Your task to perform on an android device: check data usage Image 0: 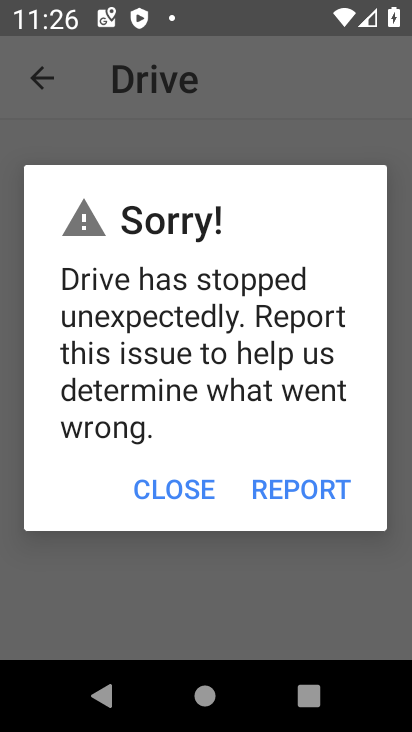
Step 0: press home button
Your task to perform on an android device: check data usage Image 1: 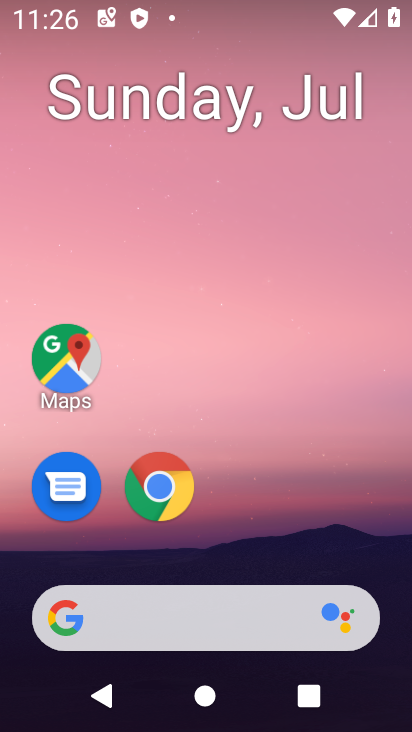
Step 1: drag from (361, 531) to (379, 97)
Your task to perform on an android device: check data usage Image 2: 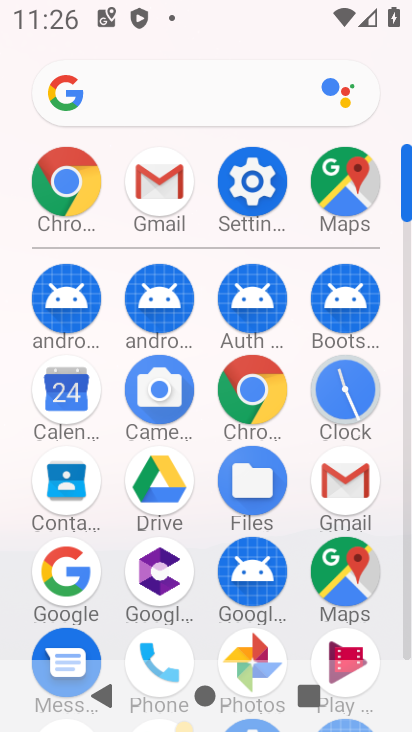
Step 2: click (265, 185)
Your task to perform on an android device: check data usage Image 3: 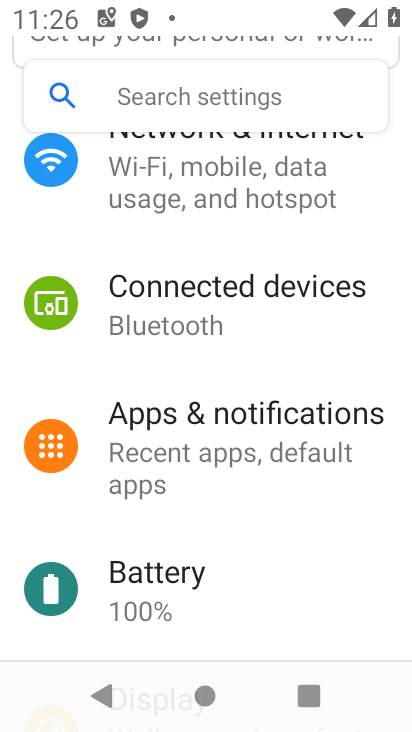
Step 3: drag from (374, 212) to (371, 398)
Your task to perform on an android device: check data usage Image 4: 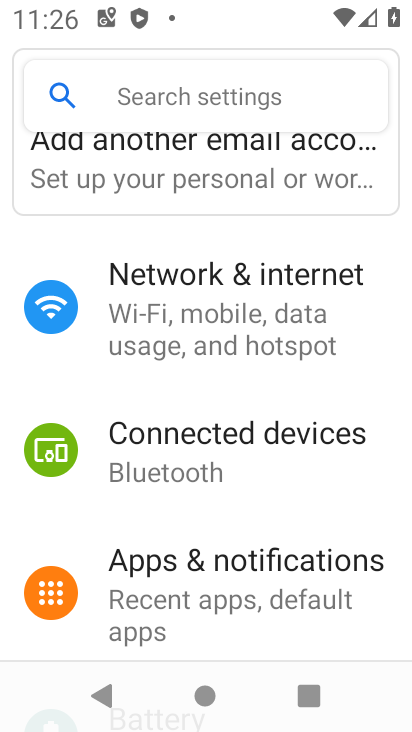
Step 4: drag from (367, 269) to (373, 425)
Your task to perform on an android device: check data usage Image 5: 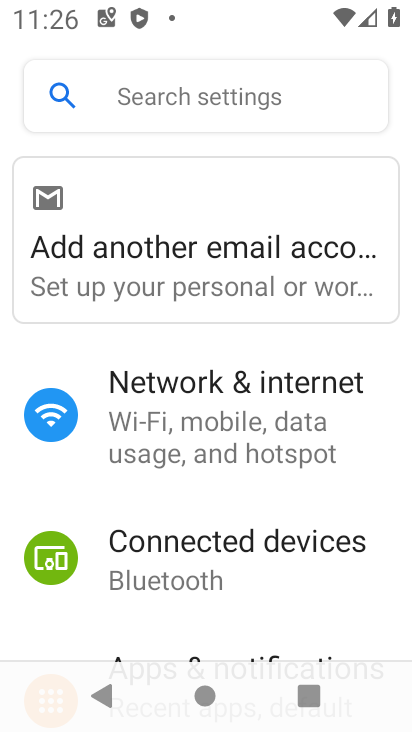
Step 5: drag from (376, 499) to (373, 384)
Your task to perform on an android device: check data usage Image 6: 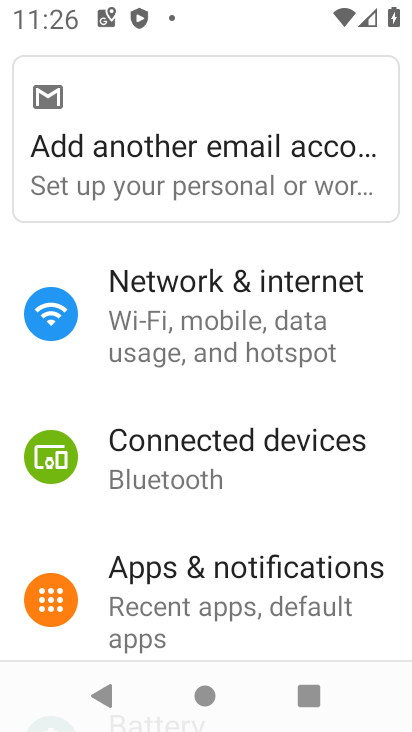
Step 6: drag from (353, 541) to (336, 392)
Your task to perform on an android device: check data usage Image 7: 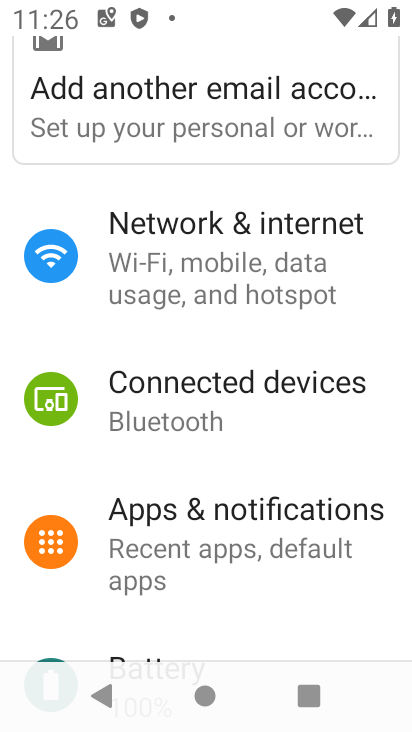
Step 7: drag from (358, 592) to (354, 411)
Your task to perform on an android device: check data usage Image 8: 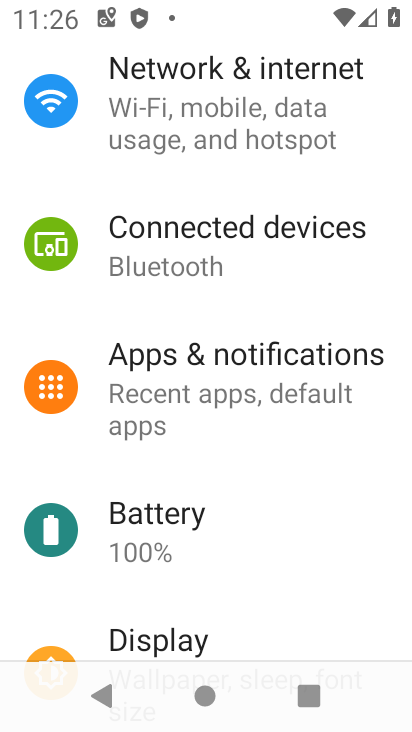
Step 8: drag from (338, 462) to (336, 402)
Your task to perform on an android device: check data usage Image 9: 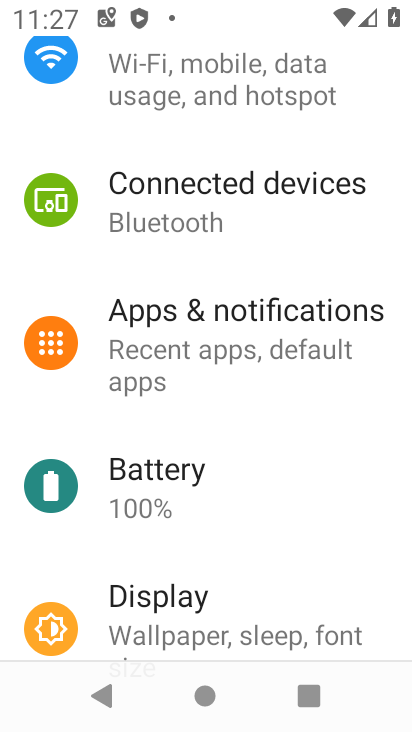
Step 9: drag from (330, 540) to (330, 365)
Your task to perform on an android device: check data usage Image 10: 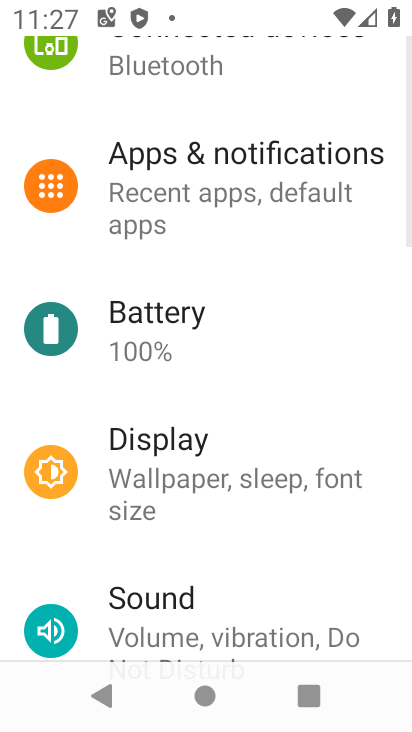
Step 10: drag from (331, 538) to (332, 374)
Your task to perform on an android device: check data usage Image 11: 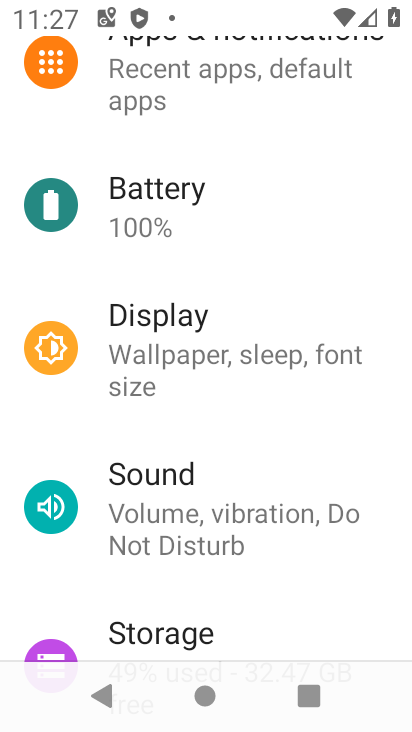
Step 11: drag from (315, 565) to (312, 434)
Your task to perform on an android device: check data usage Image 12: 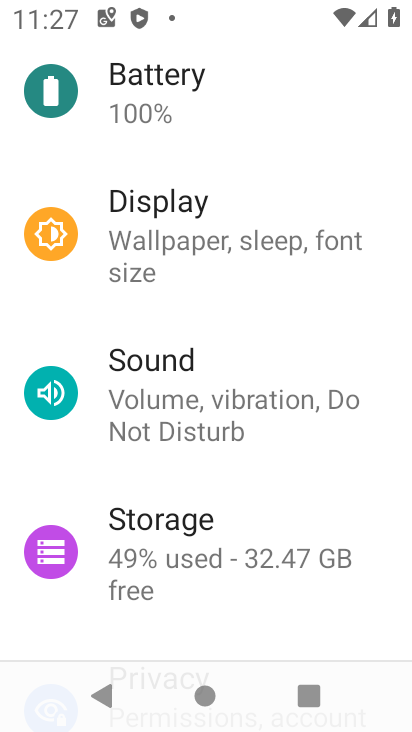
Step 12: drag from (334, 195) to (312, 389)
Your task to perform on an android device: check data usage Image 13: 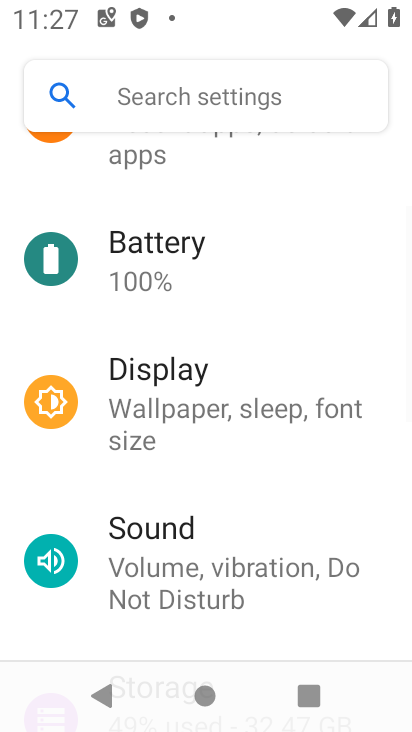
Step 13: drag from (332, 210) to (327, 369)
Your task to perform on an android device: check data usage Image 14: 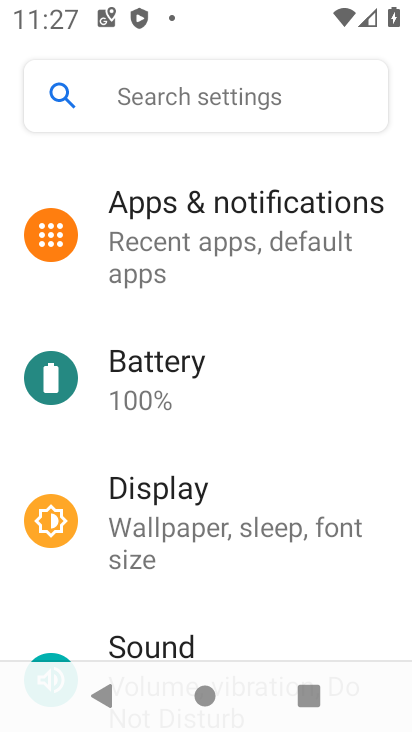
Step 14: drag from (356, 157) to (348, 428)
Your task to perform on an android device: check data usage Image 15: 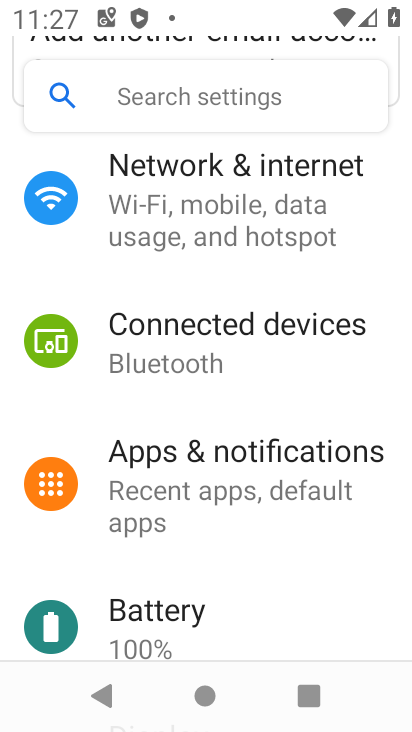
Step 15: click (321, 221)
Your task to perform on an android device: check data usage Image 16: 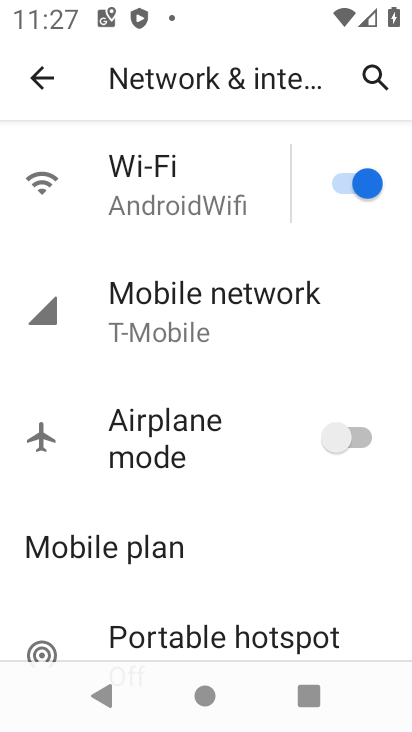
Step 16: drag from (263, 485) to (260, 341)
Your task to perform on an android device: check data usage Image 17: 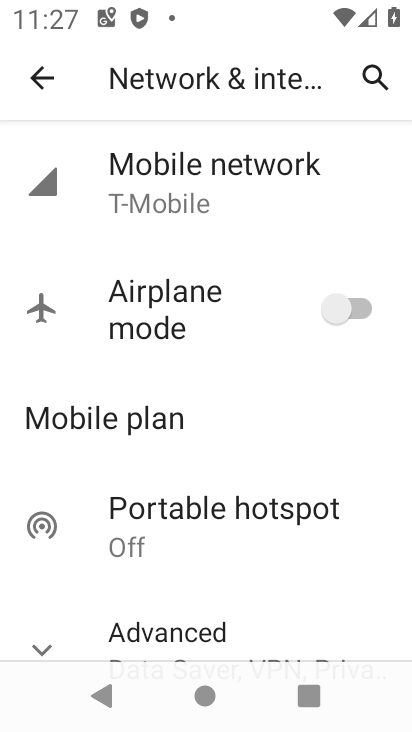
Step 17: drag from (264, 551) to (253, 315)
Your task to perform on an android device: check data usage Image 18: 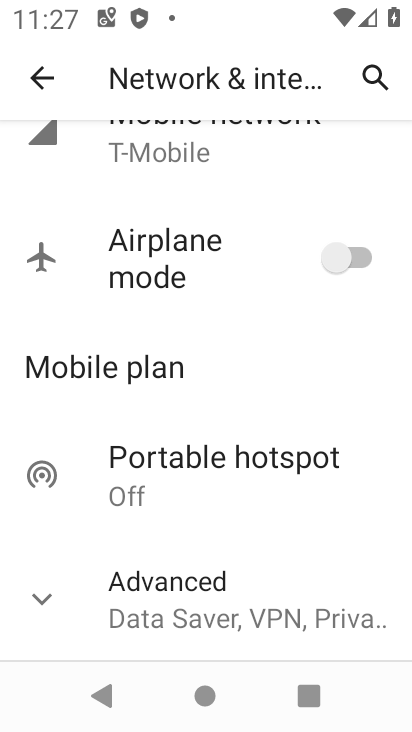
Step 18: drag from (250, 232) to (251, 474)
Your task to perform on an android device: check data usage Image 19: 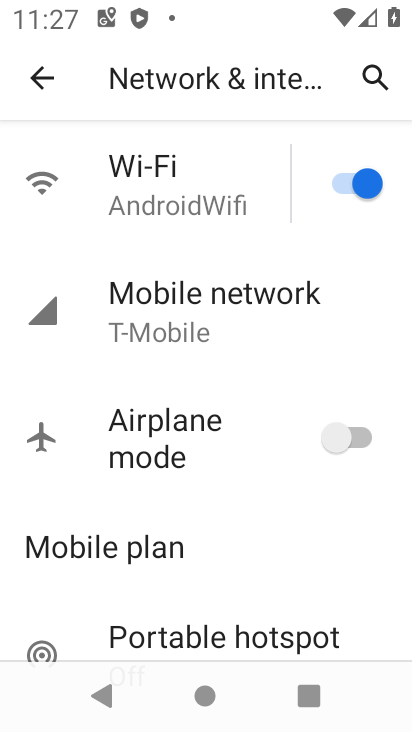
Step 19: click (206, 327)
Your task to perform on an android device: check data usage Image 20: 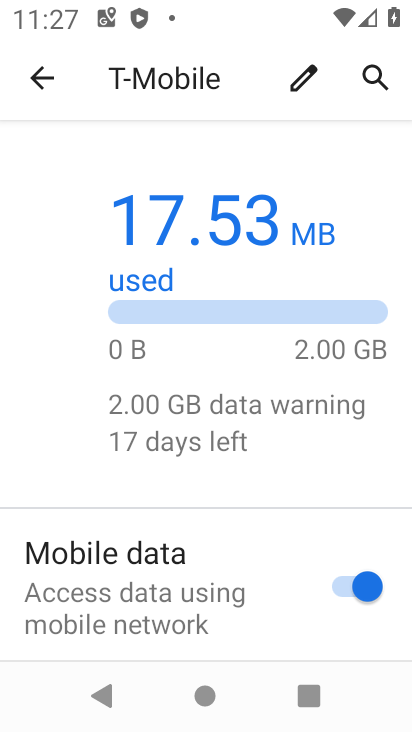
Step 20: drag from (254, 503) to (254, 408)
Your task to perform on an android device: check data usage Image 21: 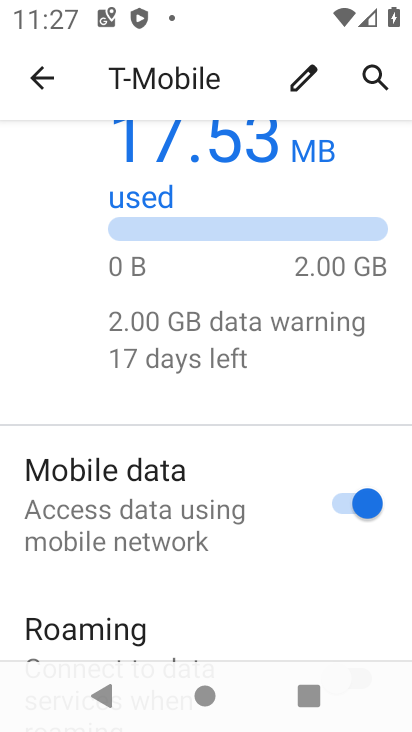
Step 21: drag from (237, 575) to (231, 390)
Your task to perform on an android device: check data usage Image 22: 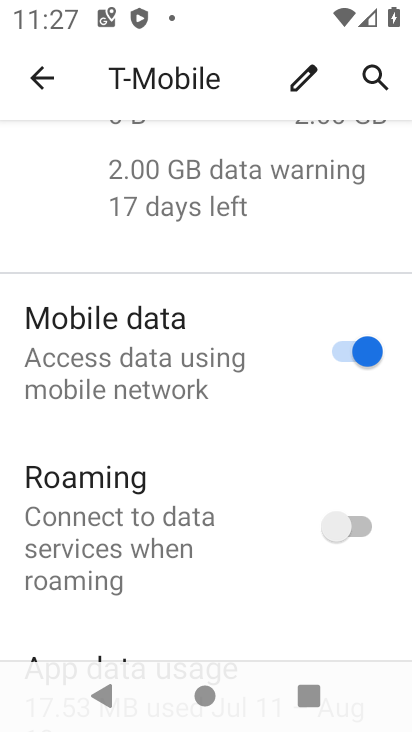
Step 22: drag from (248, 587) to (253, 402)
Your task to perform on an android device: check data usage Image 23: 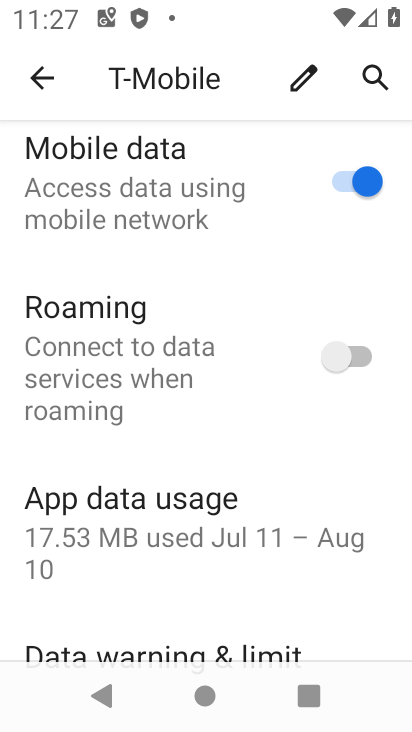
Step 23: click (251, 510)
Your task to perform on an android device: check data usage Image 24: 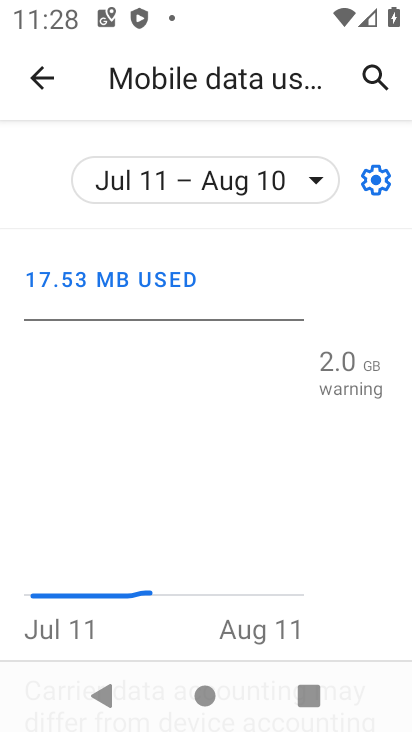
Step 24: task complete